Your task to perform on an android device: turn off sleep mode Image 0: 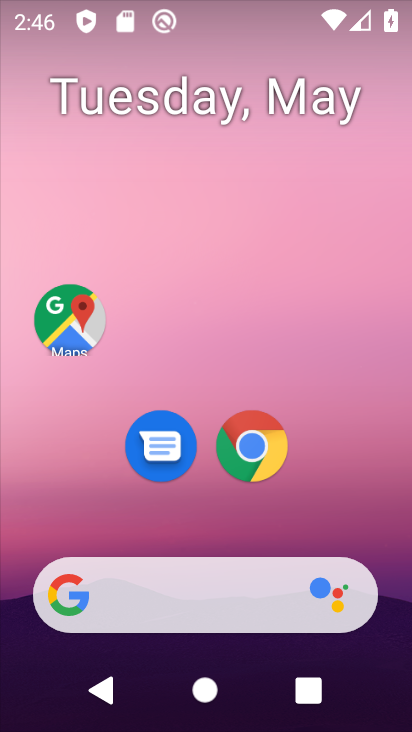
Step 0: drag from (350, 10) to (250, 639)
Your task to perform on an android device: turn off sleep mode Image 1: 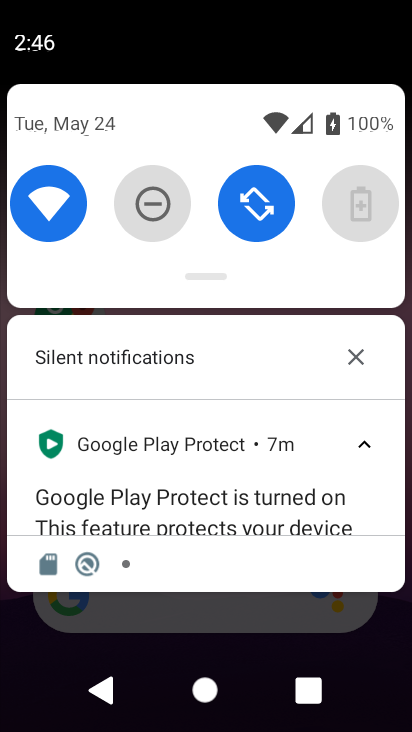
Step 1: drag from (208, 275) to (220, 498)
Your task to perform on an android device: turn off sleep mode Image 2: 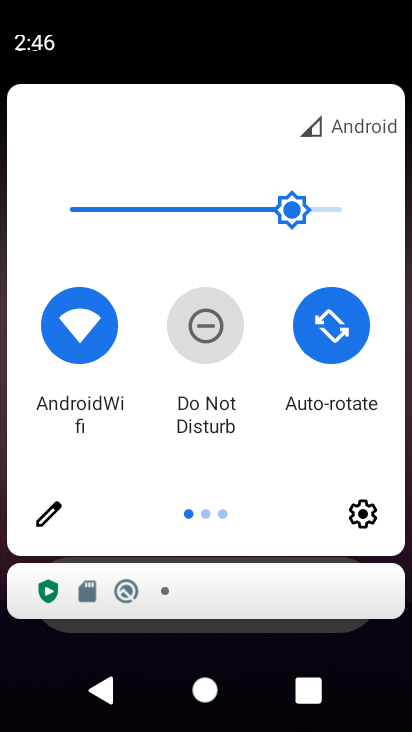
Step 2: click (46, 510)
Your task to perform on an android device: turn off sleep mode Image 3: 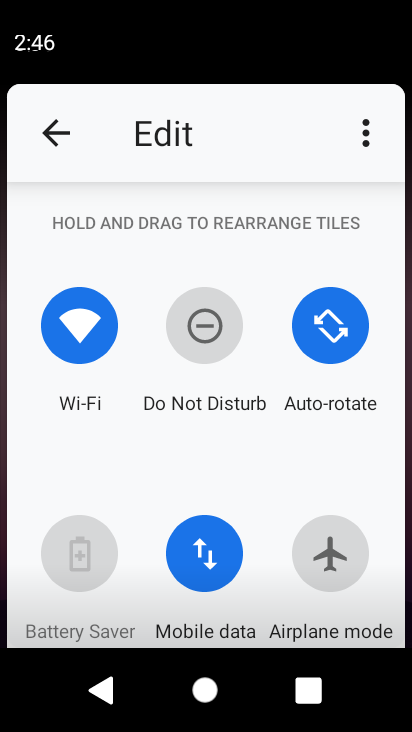
Step 3: task complete